Your task to perform on an android device: Is it going to rain tomorrow? Image 0: 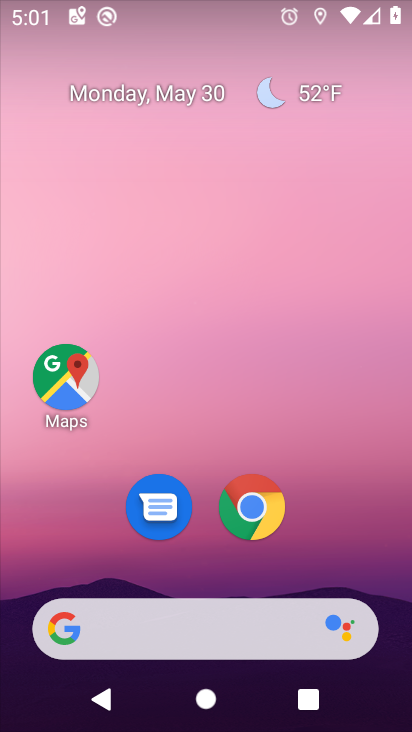
Step 0: click (281, 488)
Your task to perform on an android device: Is it going to rain tomorrow? Image 1: 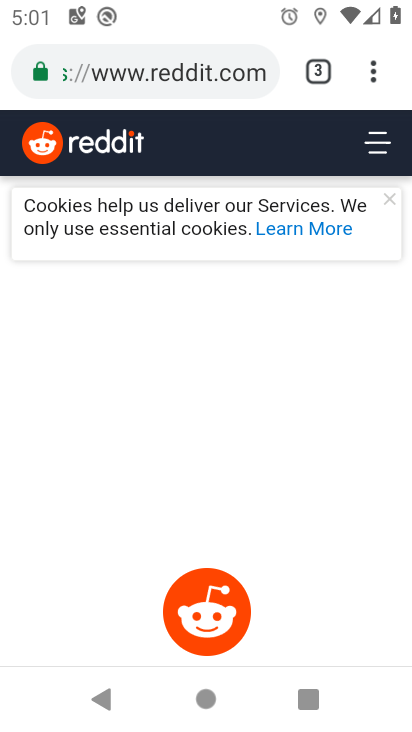
Step 1: click (222, 52)
Your task to perform on an android device: Is it going to rain tomorrow? Image 2: 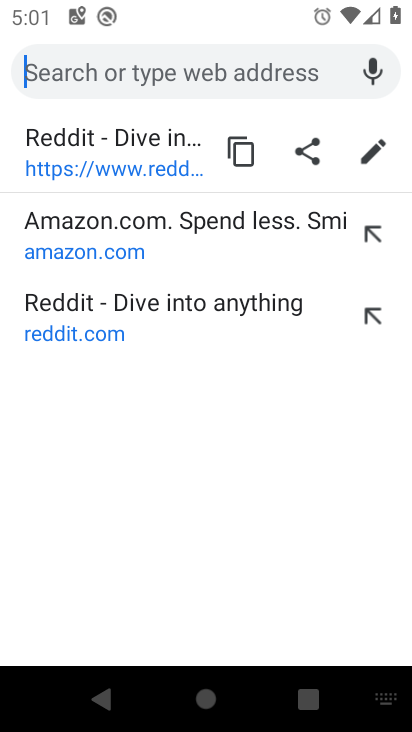
Step 2: type "Is it going to rain tomorrow?"
Your task to perform on an android device: Is it going to rain tomorrow? Image 3: 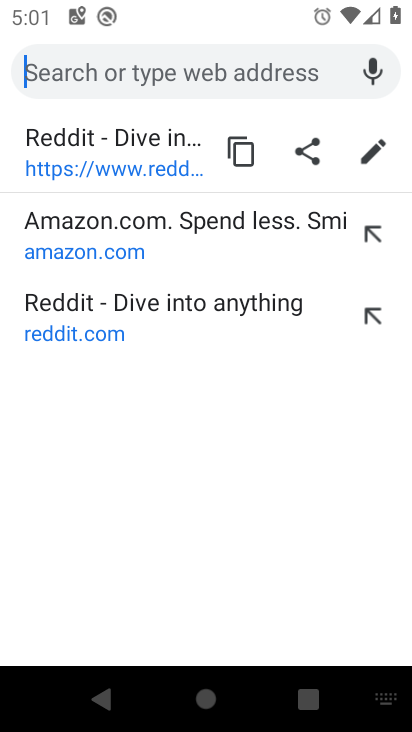
Step 3: click (198, 134)
Your task to perform on an android device: Is it going to rain tomorrow? Image 4: 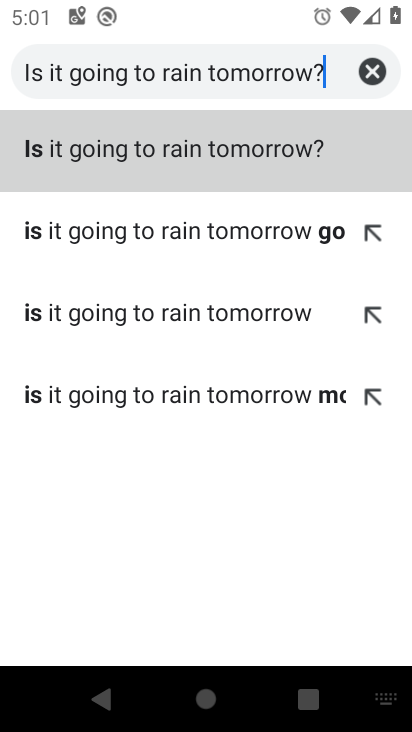
Step 4: type ""
Your task to perform on an android device: Is it going to rain tomorrow? Image 5: 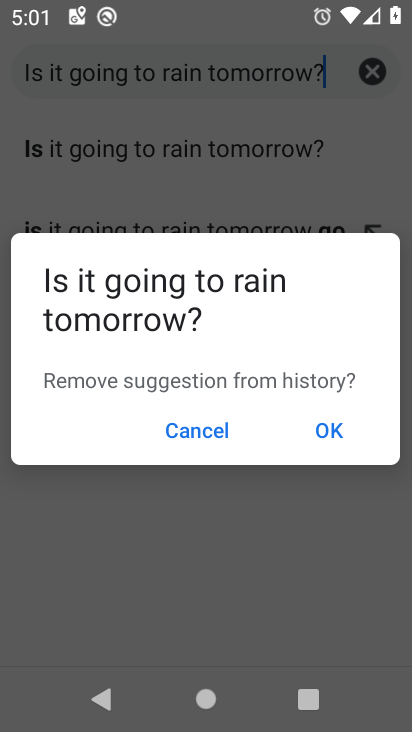
Step 5: click (208, 428)
Your task to perform on an android device: Is it going to rain tomorrow? Image 6: 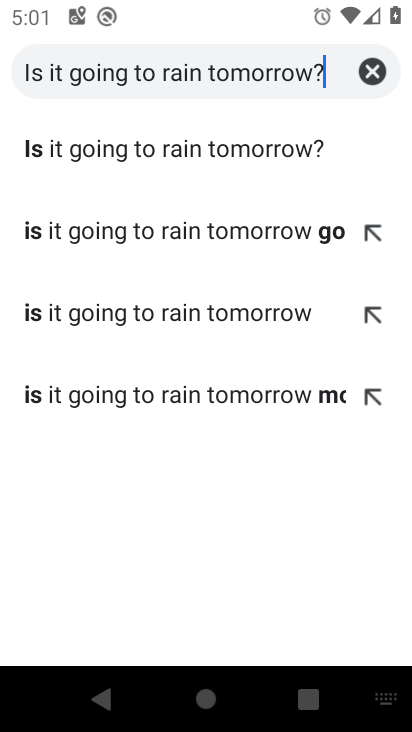
Step 6: click (232, 161)
Your task to perform on an android device: Is it going to rain tomorrow? Image 7: 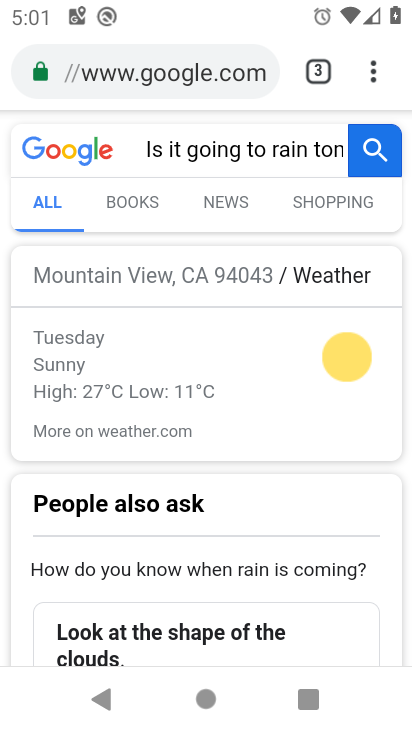
Step 7: task complete